Your task to perform on an android device: Go to ESPN.com Image 0: 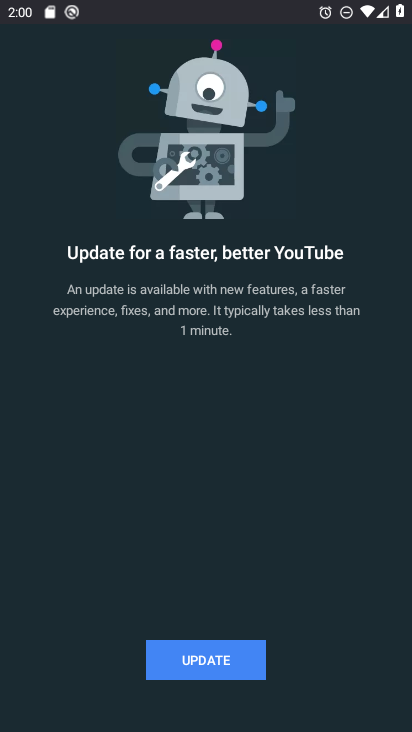
Step 0: press home button
Your task to perform on an android device: Go to ESPN.com Image 1: 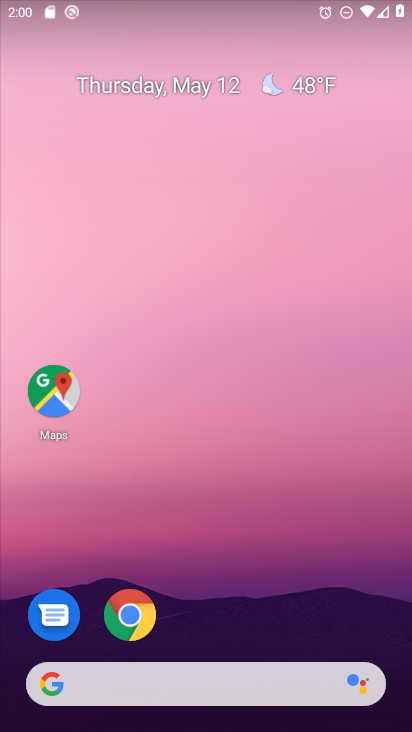
Step 1: drag from (335, 631) to (408, 80)
Your task to perform on an android device: Go to ESPN.com Image 2: 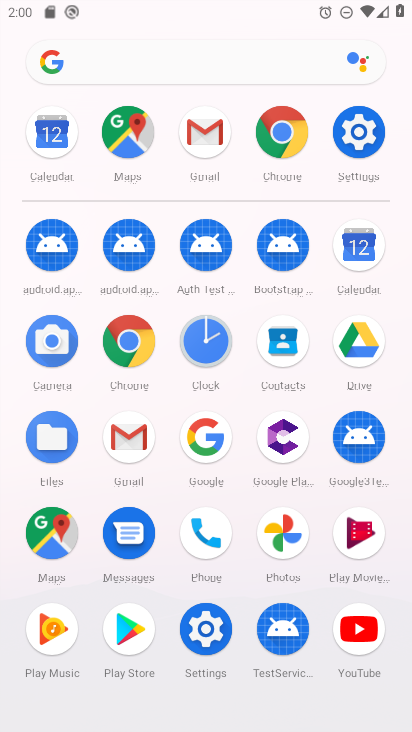
Step 2: click (122, 327)
Your task to perform on an android device: Go to ESPN.com Image 3: 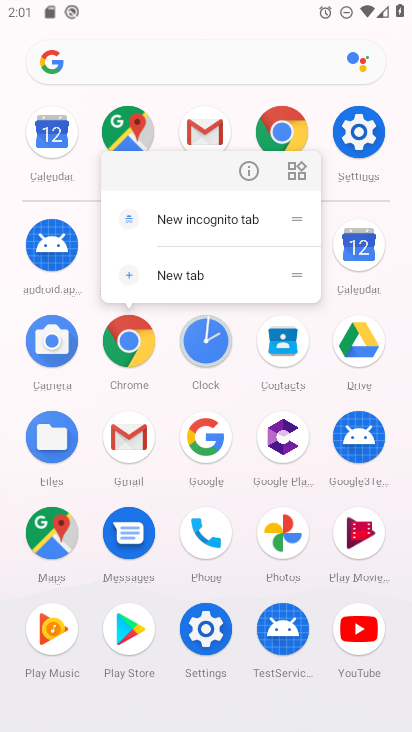
Step 3: click (118, 348)
Your task to perform on an android device: Go to ESPN.com Image 4: 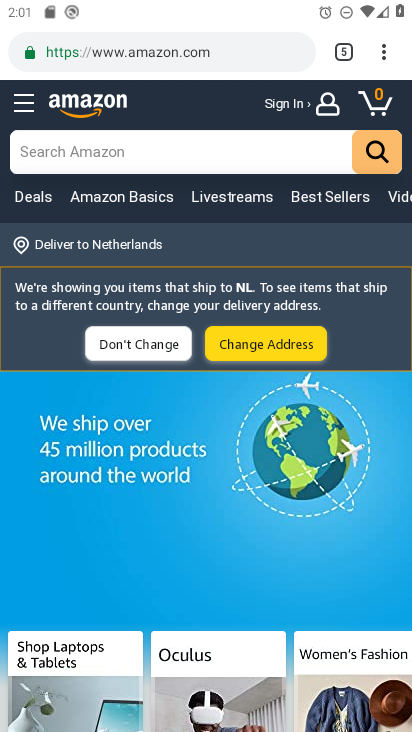
Step 4: click (269, 57)
Your task to perform on an android device: Go to ESPN.com Image 5: 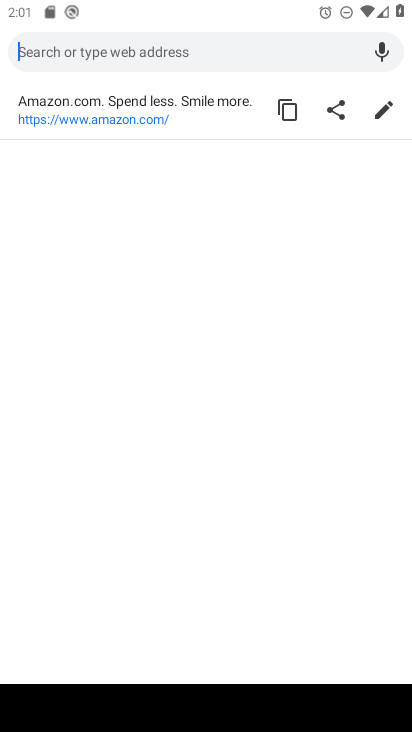
Step 5: type "espn.com"
Your task to perform on an android device: Go to ESPN.com Image 6: 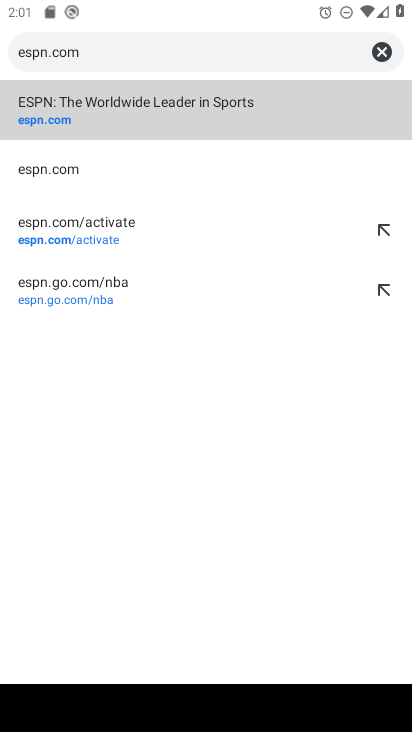
Step 6: click (109, 119)
Your task to perform on an android device: Go to ESPN.com Image 7: 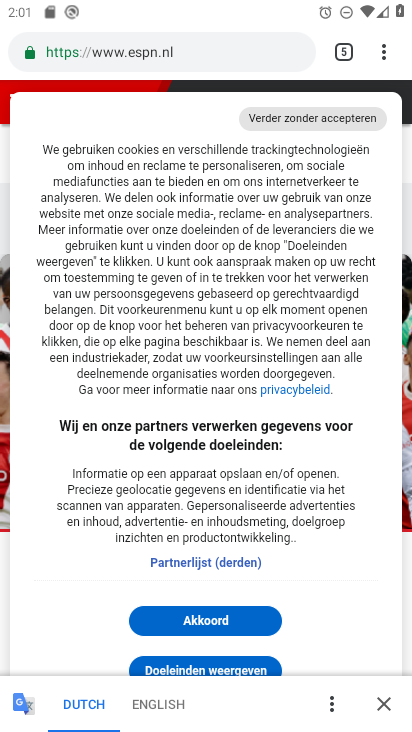
Step 7: task complete